Your task to perform on an android device: Show me popular games on the Play Store Image 0: 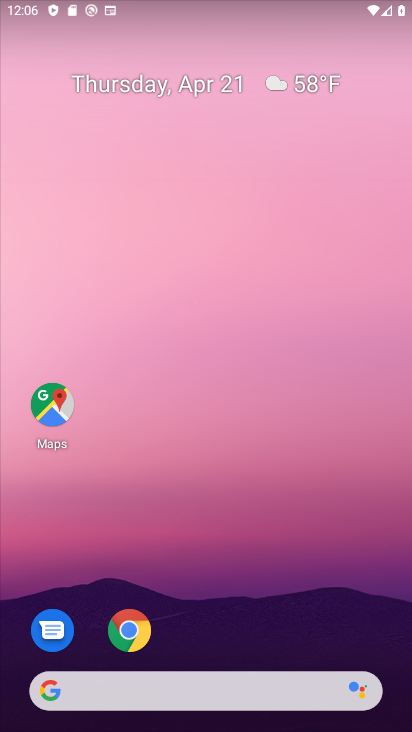
Step 0: click (296, 104)
Your task to perform on an android device: Show me popular games on the Play Store Image 1: 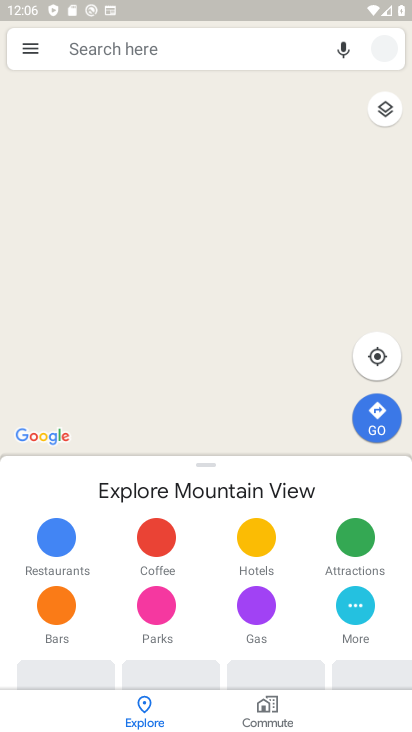
Step 1: press home button
Your task to perform on an android device: Show me popular games on the Play Store Image 2: 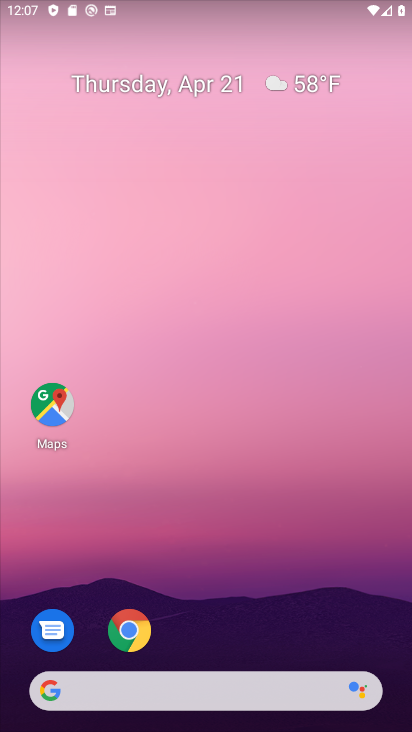
Step 2: drag from (206, 638) to (309, 147)
Your task to perform on an android device: Show me popular games on the Play Store Image 3: 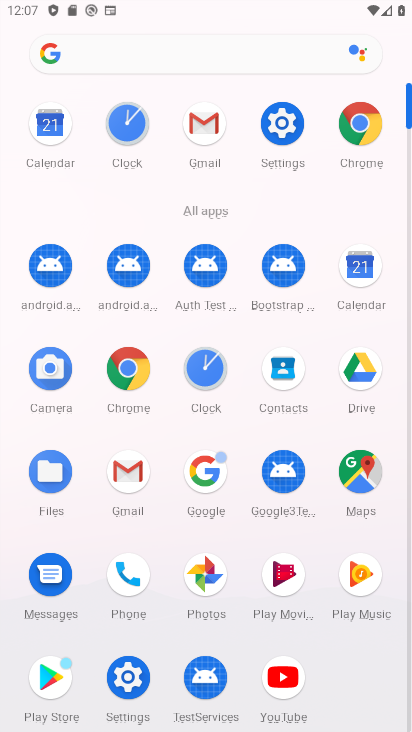
Step 3: click (44, 669)
Your task to perform on an android device: Show me popular games on the Play Store Image 4: 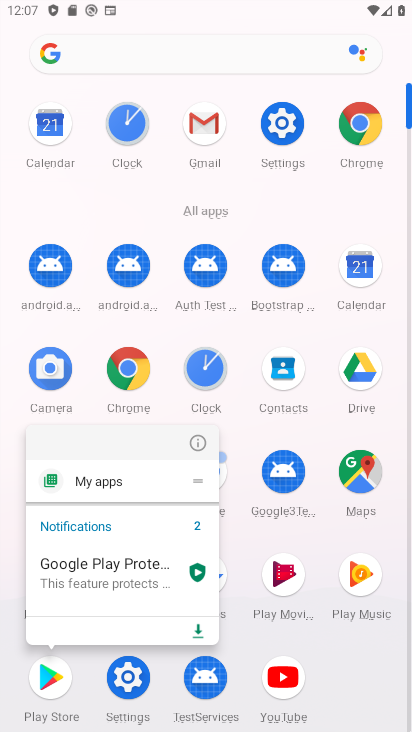
Step 4: click (46, 677)
Your task to perform on an android device: Show me popular games on the Play Store Image 5: 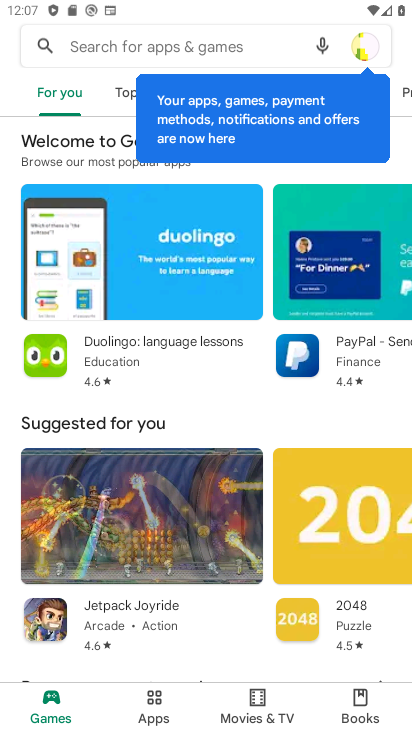
Step 5: drag from (176, 613) to (260, 170)
Your task to perform on an android device: Show me popular games on the Play Store Image 6: 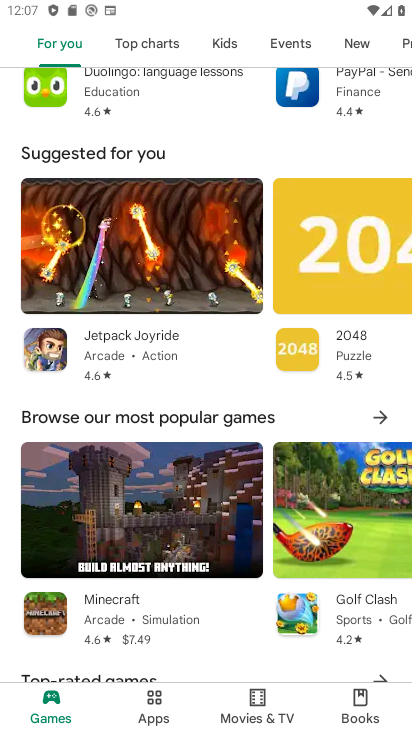
Step 6: click (213, 415)
Your task to perform on an android device: Show me popular games on the Play Store Image 7: 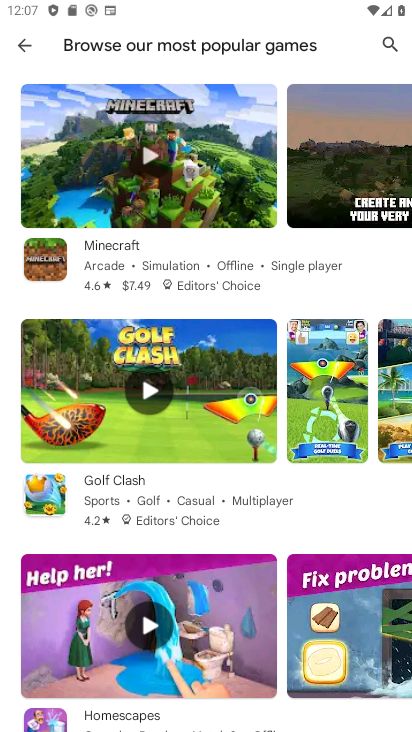
Step 7: task complete